Your task to perform on an android device: remove spam from my inbox in the gmail app Image 0: 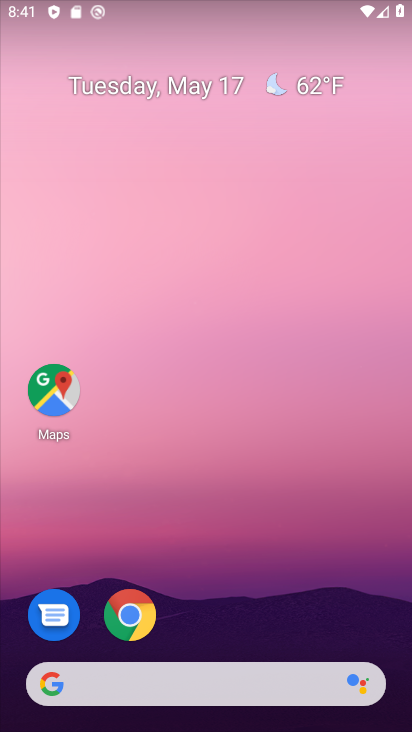
Step 0: drag from (278, 581) to (298, 0)
Your task to perform on an android device: remove spam from my inbox in the gmail app Image 1: 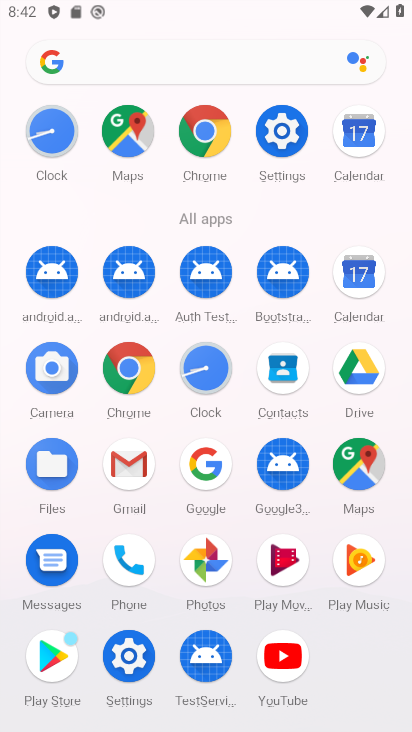
Step 1: click (119, 471)
Your task to perform on an android device: remove spam from my inbox in the gmail app Image 2: 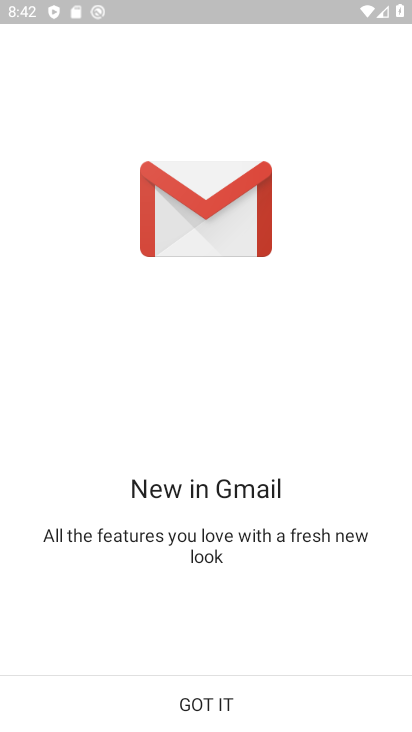
Step 2: click (222, 682)
Your task to perform on an android device: remove spam from my inbox in the gmail app Image 3: 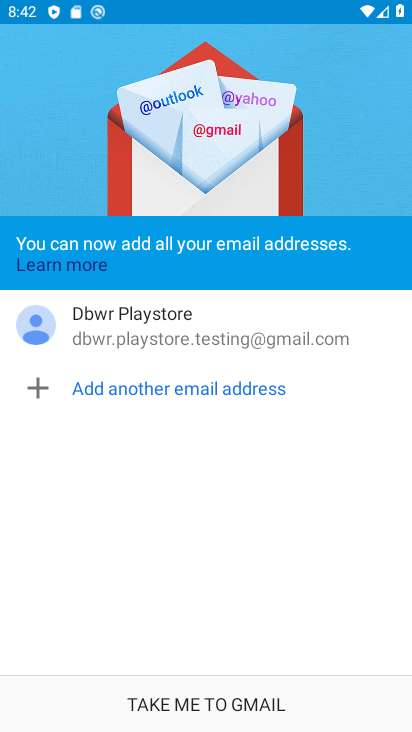
Step 3: click (225, 717)
Your task to perform on an android device: remove spam from my inbox in the gmail app Image 4: 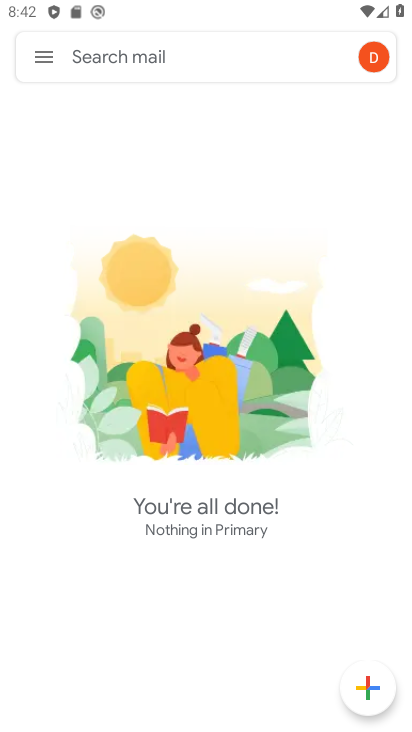
Step 4: click (36, 55)
Your task to perform on an android device: remove spam from my inbox in the gmail app Image 5: 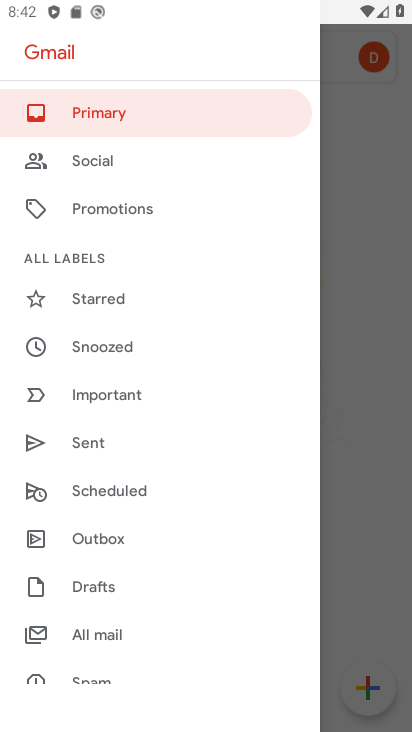
Step 5: drag from (123, 639) to (141, 387)
Your task to perform on an android device: remove spam from my inbox in the gmail app Image 6: 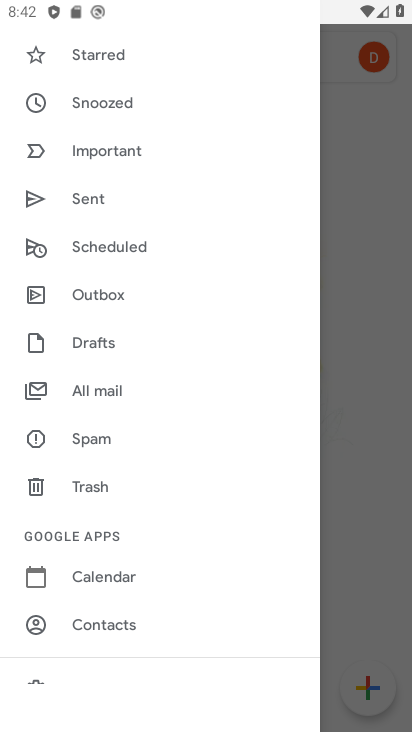
Step 6: click (96, 438)
Your task to perform on an android device: remove spam from my inbox in the gmail app Image 7: 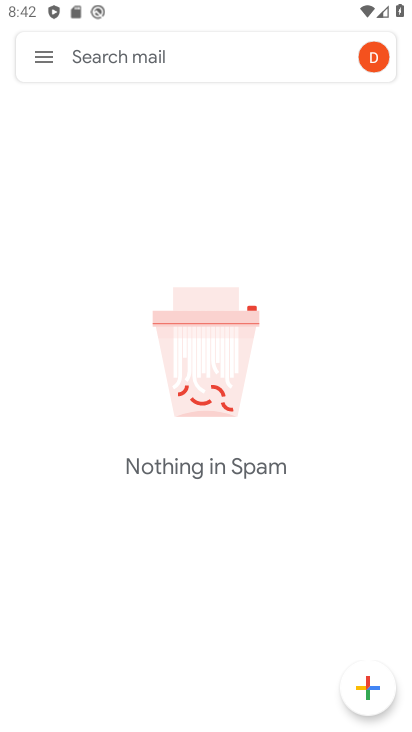
Step 7: task complete